Your task to perform on an android device: Go to CNN.com Image 0: 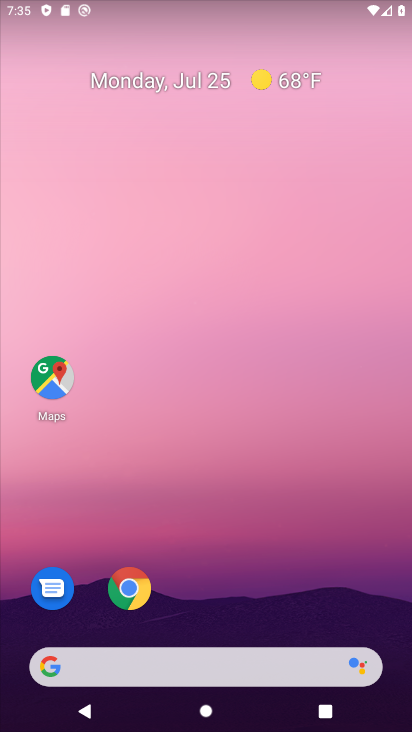
Step 0: press home button
Your task to perform on an android device: Go to CNN.com Image 1: 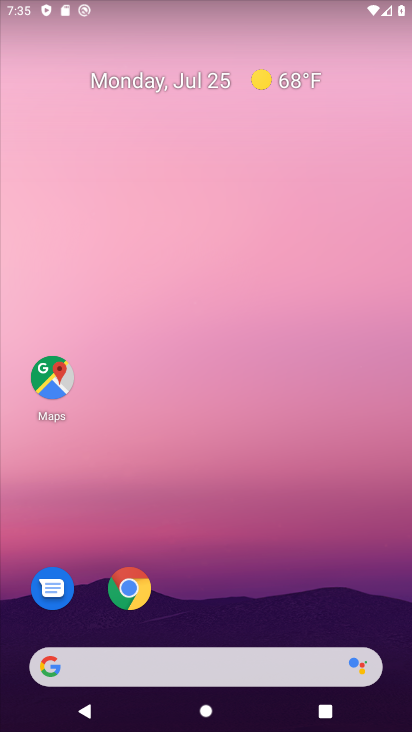
Step 1: drag from (376, 591) to (360, 104)
Your task to perform on an android device: Go to CNN.com Image 2: 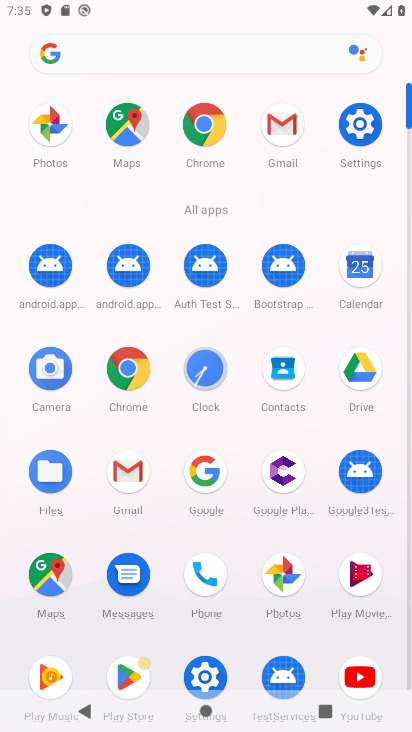
Step 2: click (206, 129)
Your task to perform on an android device: Go to CNN.com Image 3: 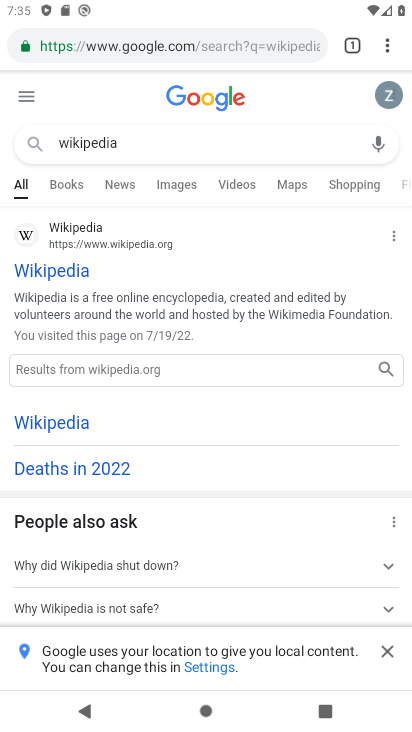
Step 3: click (270, 44)
Your task to perform on an android device: Go to CNN.com Image 4: 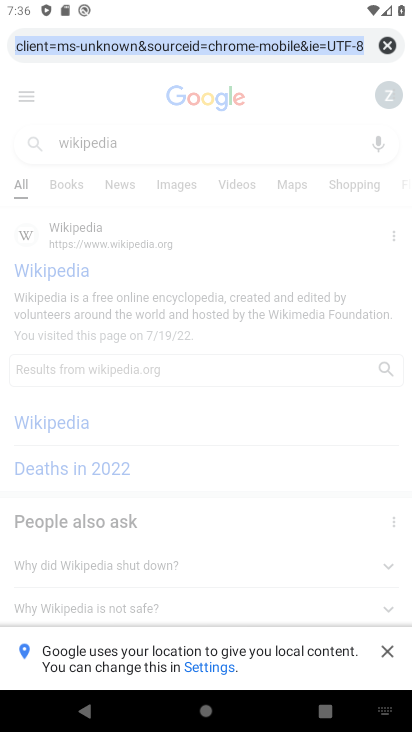
Step 4: type "cnn.com"
Your task to perform on an android device: Go to CNN.com Image 5: 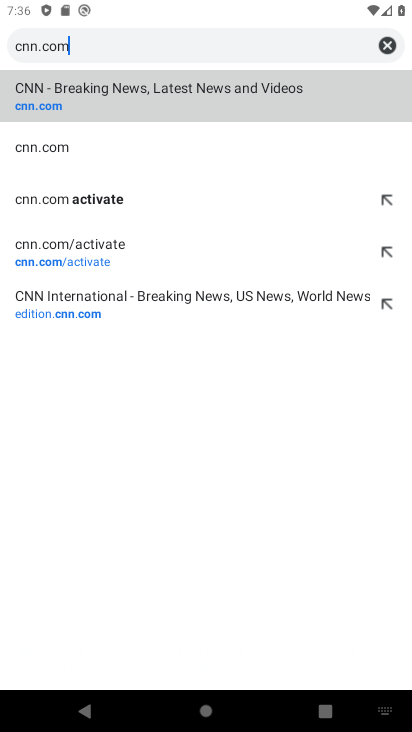
Step 5: click (197, 105)
Your task to perform on an android device: Go to CNN.com Image 6: 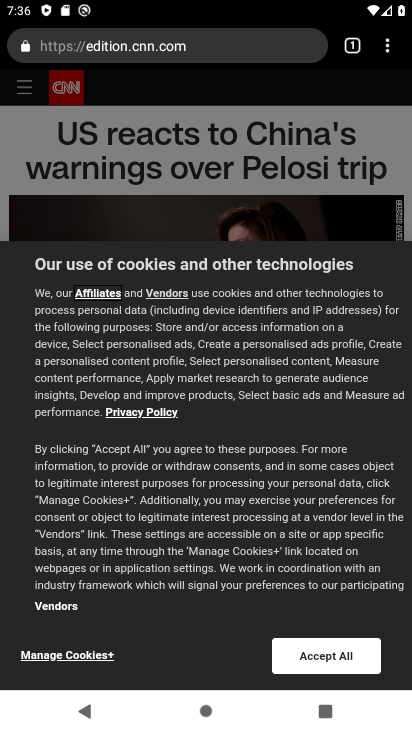
Step 6: task complete